Your task to perform on an android device: Check the weather Image 0: 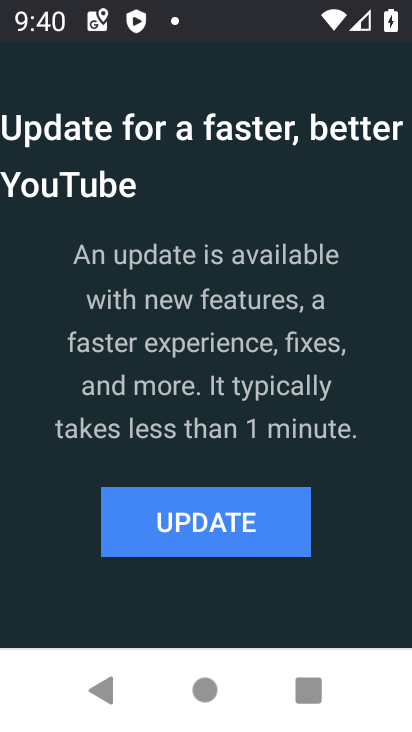
Step 0: press home button
Your task to perform on an android device: Check the weather Image 1: 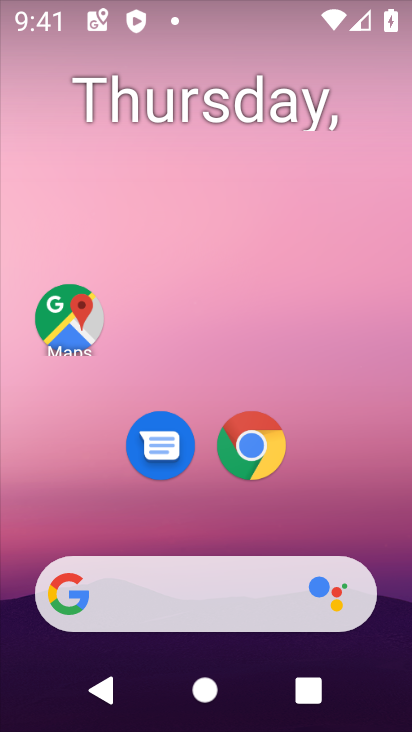
Step 1: drag from (151, 566) to (157, 185)
Your task to perform on an android device: Check the weather Image 2: 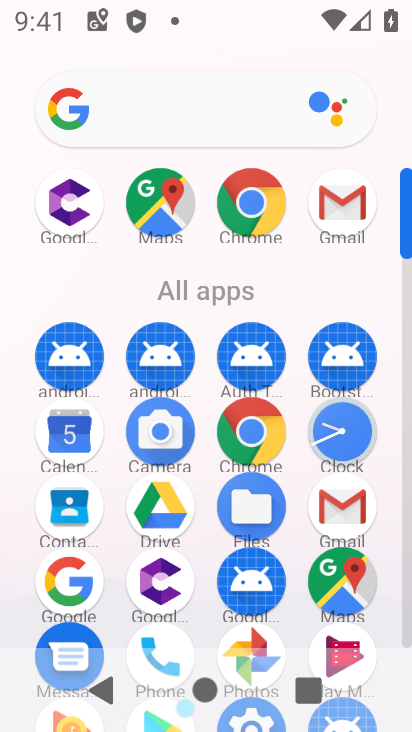
Step 2: click (67, 582)
Your task to perform on an android device: Check the weather Image 3: 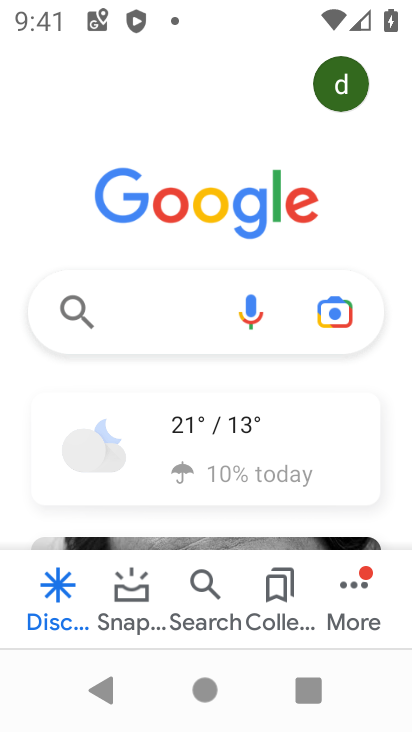
Step 3: click (283, 453)
Your task to perform on an android device: Check the weather Image 4: 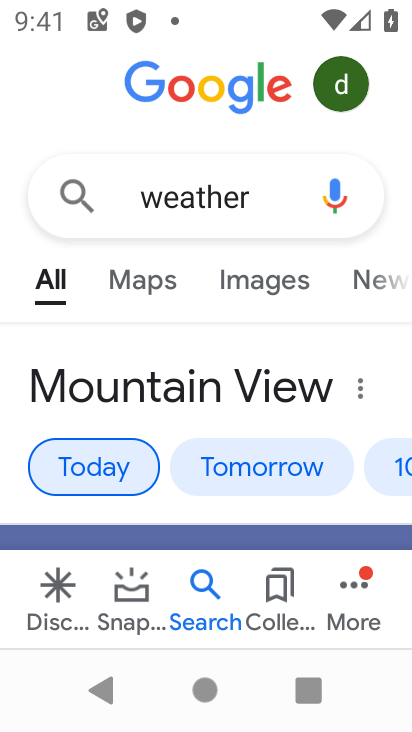
Step 4: task complete